Your task to perform on an android device: turn off picture-in-picture Image 0: 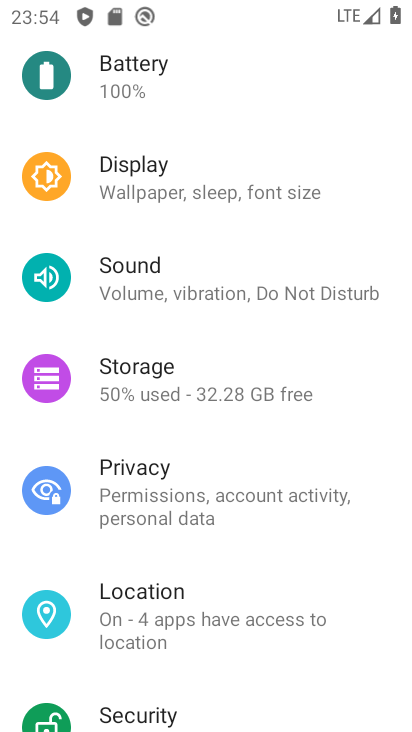
Step 0: press home button
Your task to perform on an android device: turn off picture-in-picture Image 1: 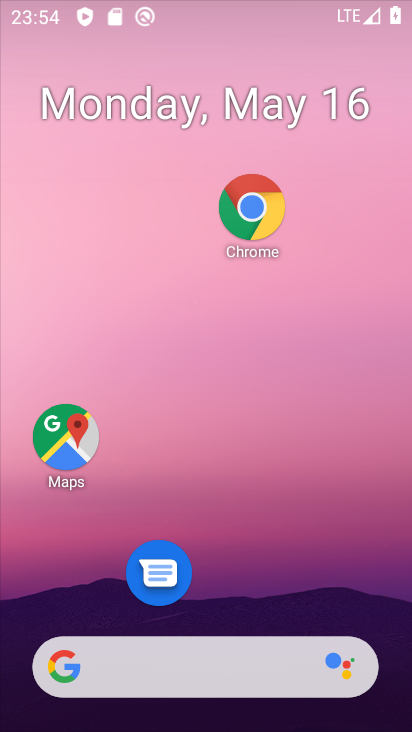
Step 1: drag from (259, 684) to (266, 50)
Your task to perform on an android device: turn off picture-in-picture Image 2: 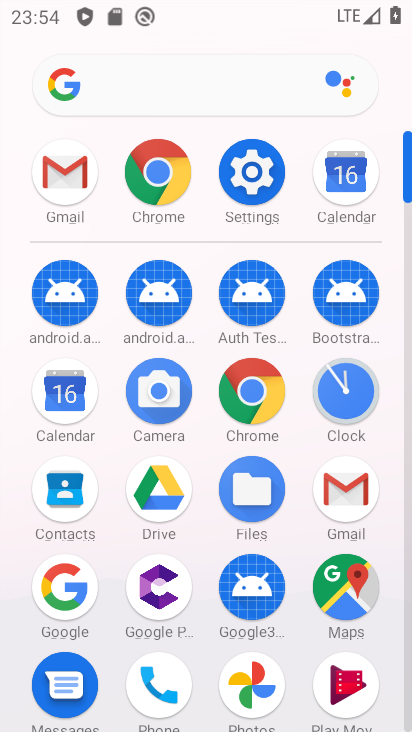
Step 2: click (264, 163)
Your task to perform on an android device: turn off picture-in-picture Image 3: 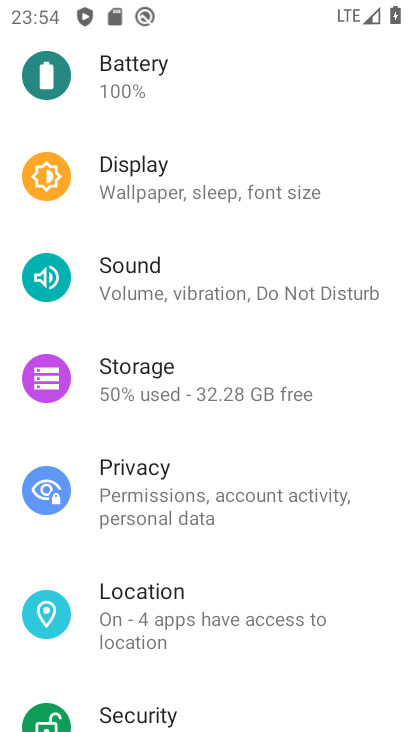
Step 3: click (296, 722)
Your task to perform on an android device: turn off picture-in-picture Image 4: 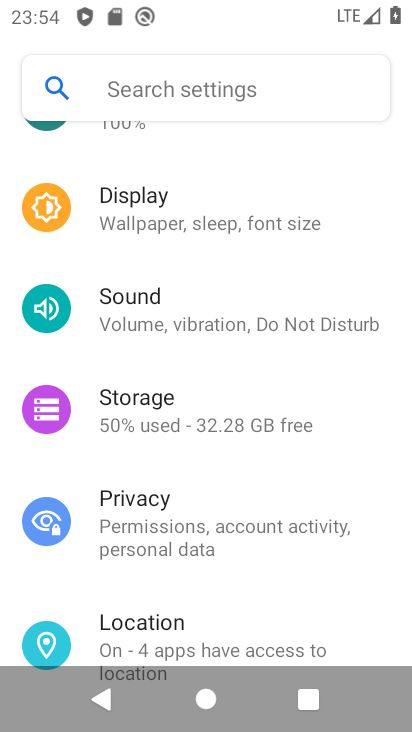
Step 4: drag from (262, 251) to (284, 499)
Your task to perform on an android device: turn off picture-in-picture Image 5: 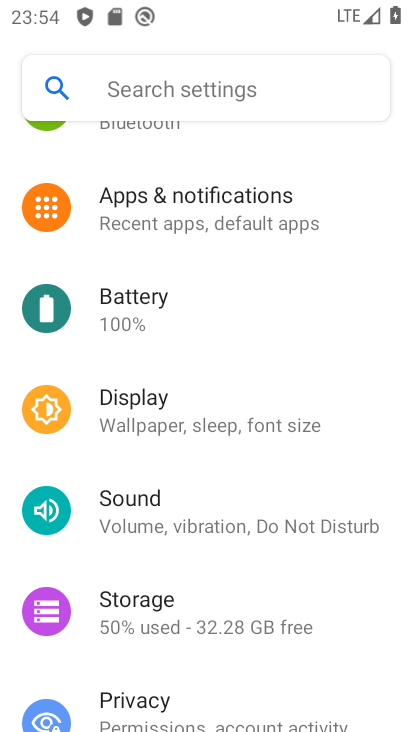
Step 5: drag from (160, 291) to (115, 656)
Your task to perform on an android device: turn off picture-in-picture Image 6: 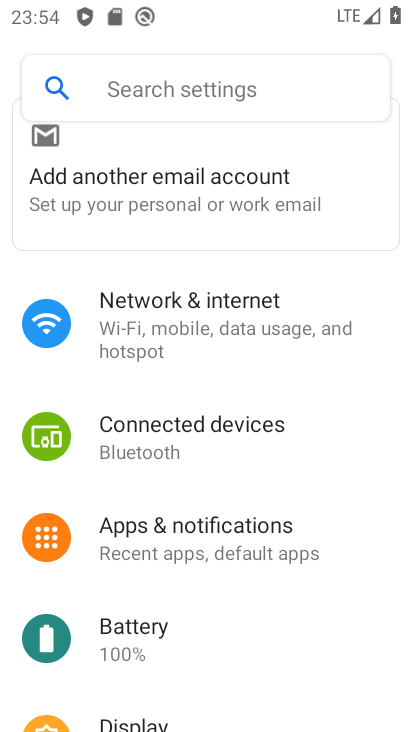
Step 6: drag from (201, 656) to (201, 425)
Your task to perform on an android device: turn off picture-in-picture Image 7: 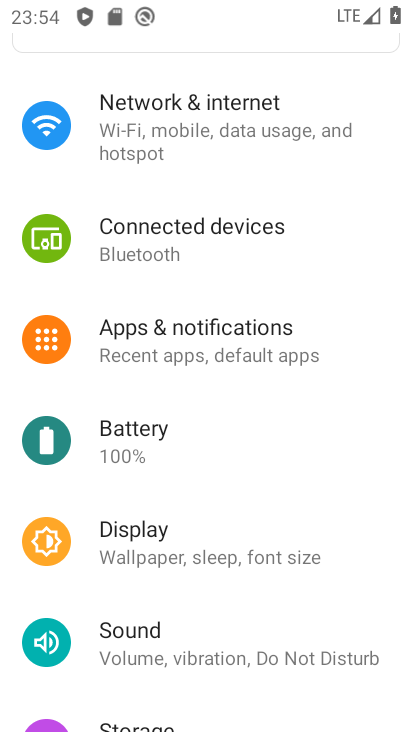
Step 7: click (231, 347)
Your task to perform on an android device: turn off picture-in-picture Image 8: 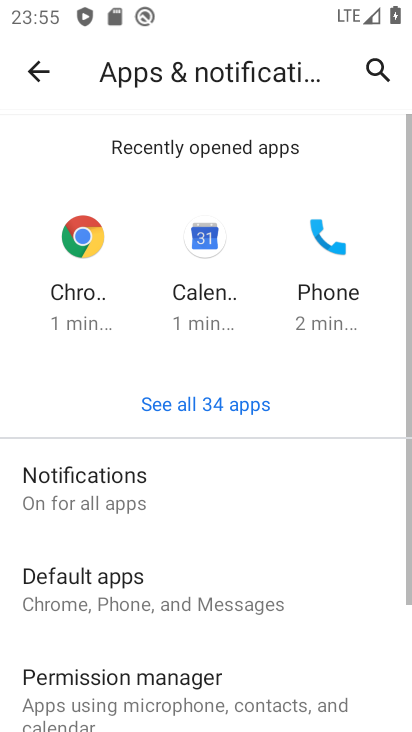
Step 8: drag from (323, 677) to (293, 289)
Your task to perform on an android device: turn off picture-in-picture Image 9: 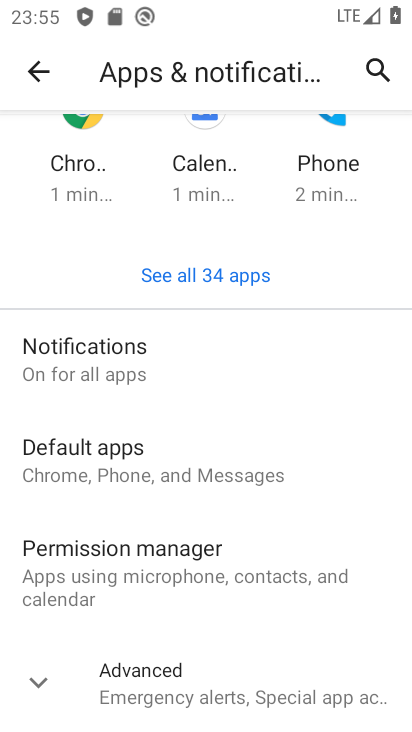
Step 9: click (274, 692)
Your task to perform on an android device: turn off picture-in-picture Image 10: 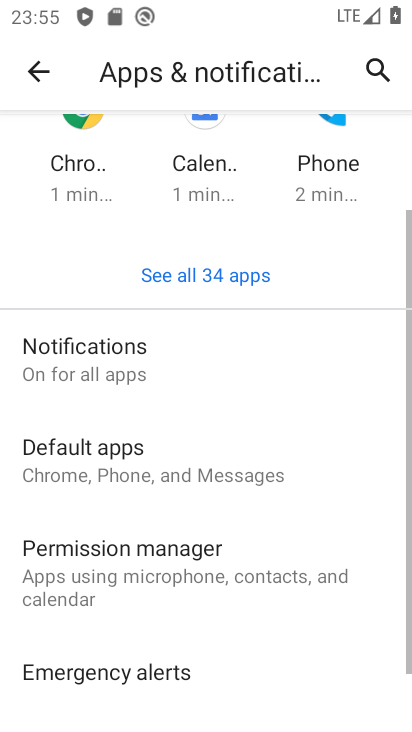
Step 10: drag from (272, 686) to (275, 122)
Your task to perform on an android device: turn off picture-in-picture Image 11: 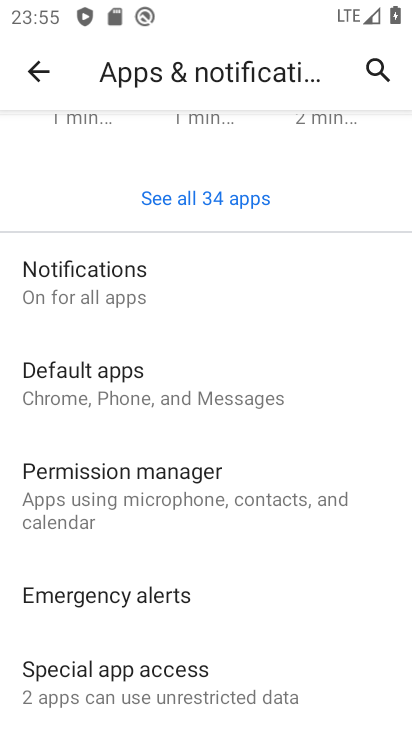
Step 11: click (233, 682)
Your task to perform on an android device: turn off picture-in-picture Image 12: 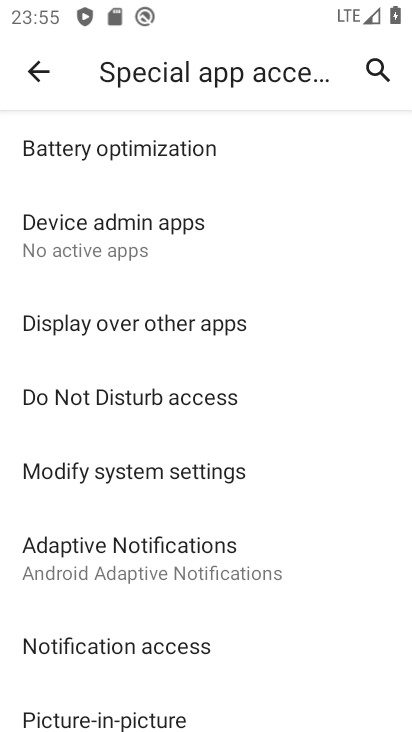
Step 12: click (189, 714)
Your task to perform on an android device: turn off picture-in-picture Image 13: 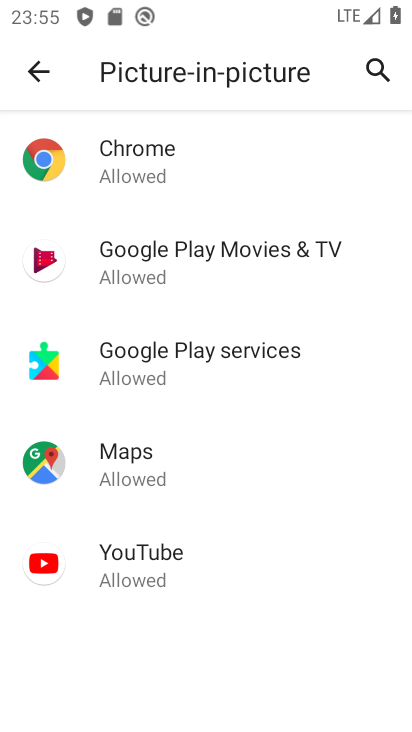
Step 13: click (102, 160)
Your task to perform on an android device: turn off picture-in-picture Image 14: 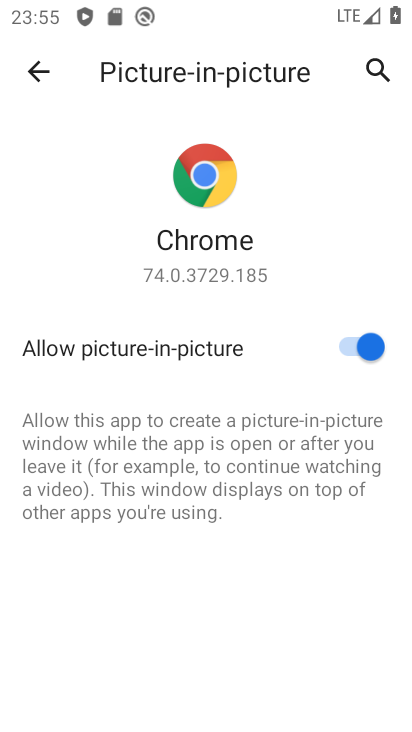
Step 14: click (347, 342)
Your task to perform on an android device: turn off picture-in-picture Image 15: 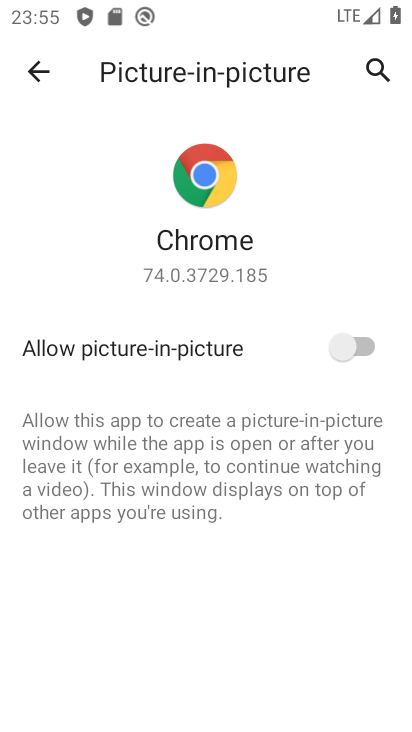
Step 15: press back button
Your task to perform on an android device: turn off picture-in-picture Image 16: 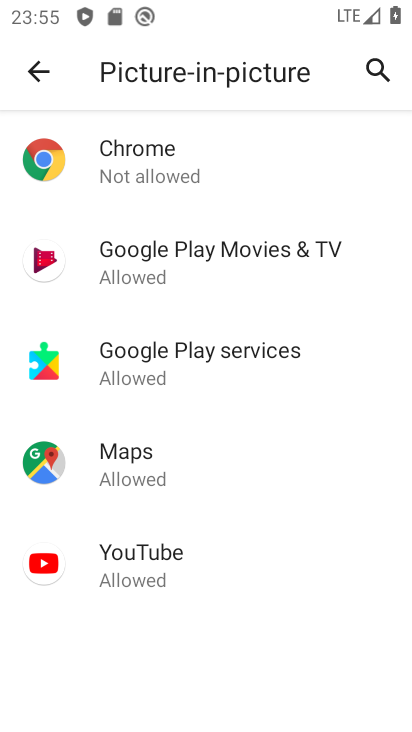
Step 16: click (172, 290)
Your task to perform on an android device: turn off picture-in-picture Image 17: 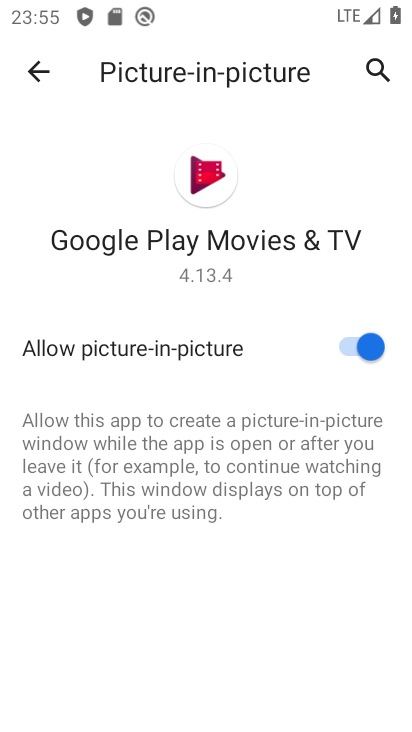
Step 17: click (348, 345)
Your task to perform on an android device: turn off picture-in-picture Image 18: 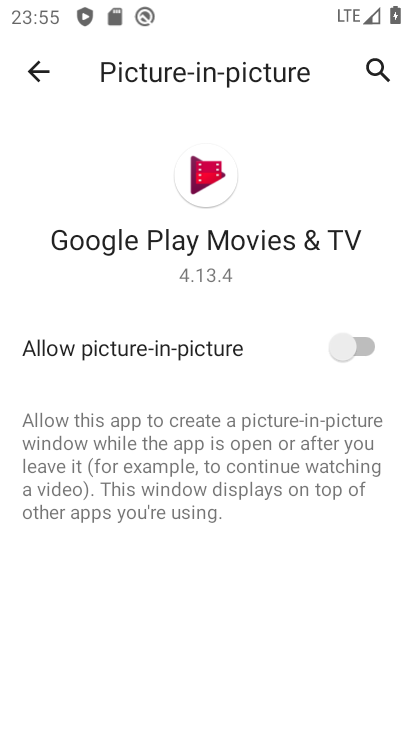
Step 18: press back button
Your task to perform on an android device: turn off picture-in-picture Image 19: 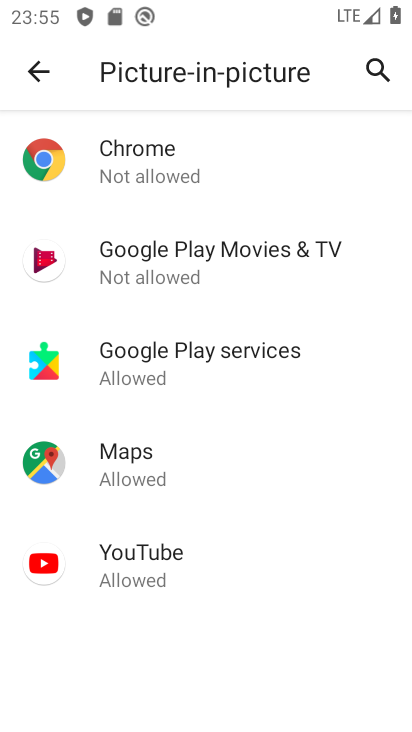
Step 19: click (201, 378)
Your task to perform on an android device: turn off picture-in-picture Image 20: 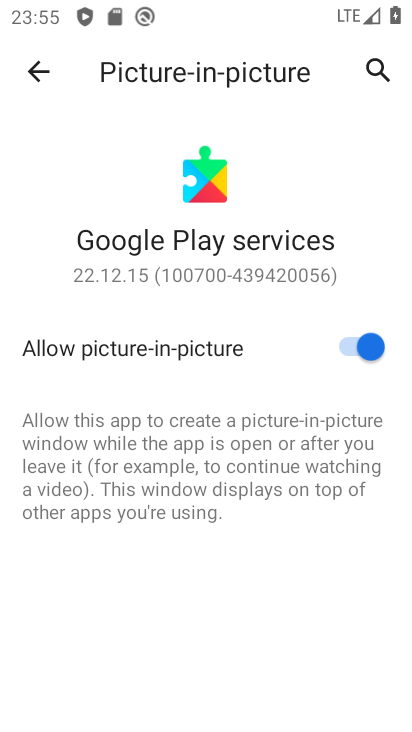
Step 20: click (351, 344)
Your task to perform on an android device: turn off picture-in-picture Image 21: 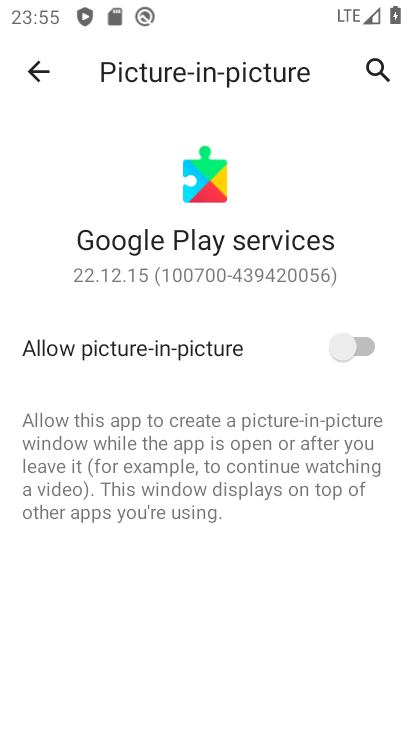
Step 21: press back button
Your task to perform on an android device: turn off picture-in-picture Image 22: 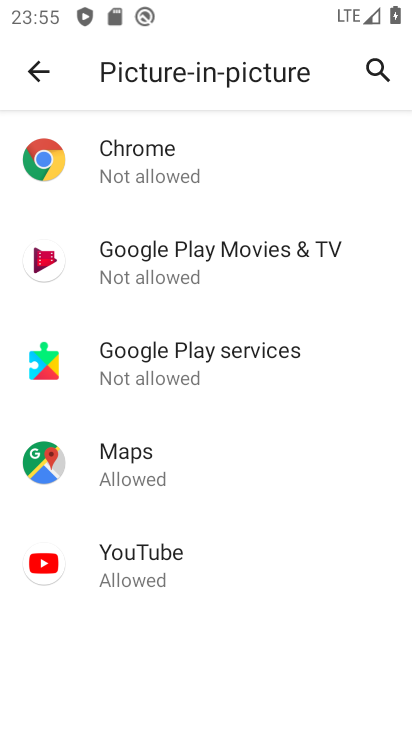
Step 22: click (179, 474)
Your task to perform on an android device: turn off picture-in-picture Image 23: 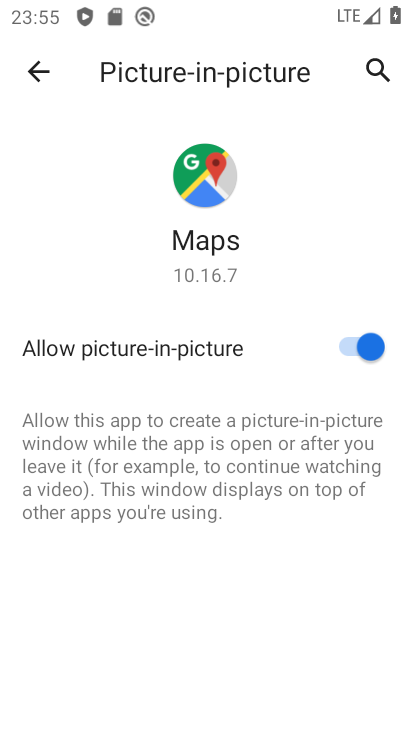
Step 23: click (359, 342)
Your task to perform on an android device: turn off picture-in-picture Image 24: 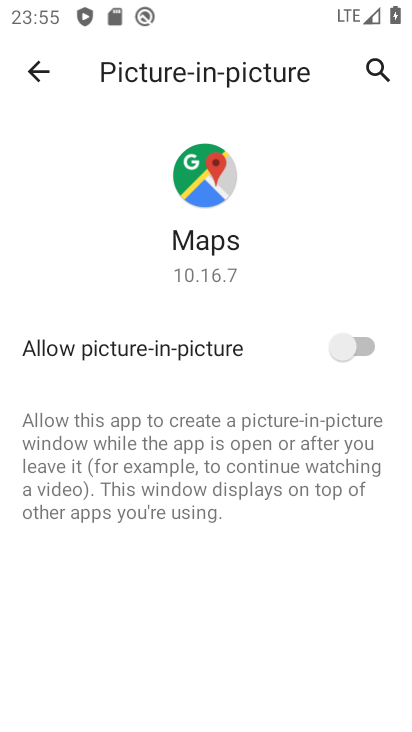
Step 24: press back button
Your task to perform on an android device: turn off picture-in-picture Image 25: 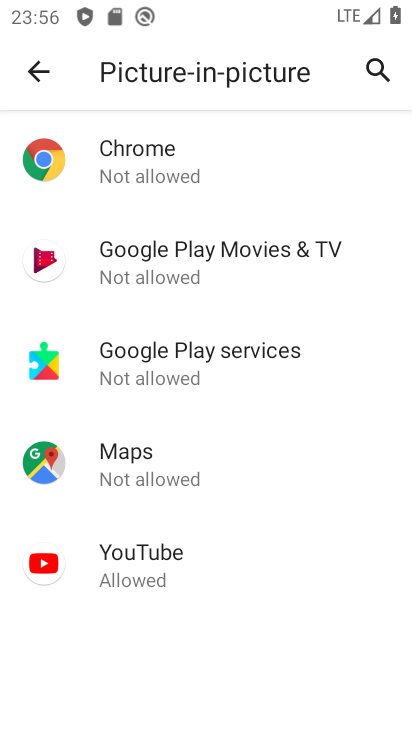
Step 25: click (127, 579)
Your task to perform on an android device: turn off picture-in-picture Image 26: 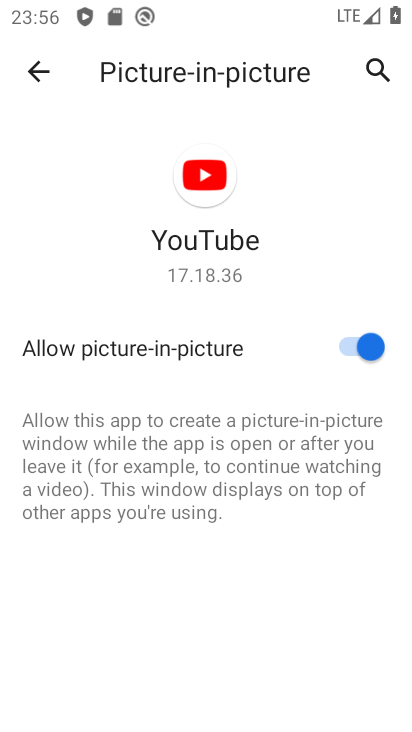
Step 26: click (364, 336)
Your task to perform on an android device: turn off picture-in-picture Image 27: 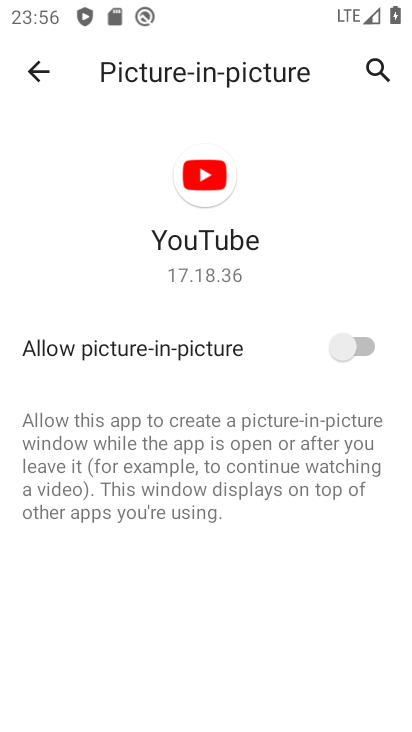
Step 27: task complete